Your task to perform on an android device: Open display settings Image 0: 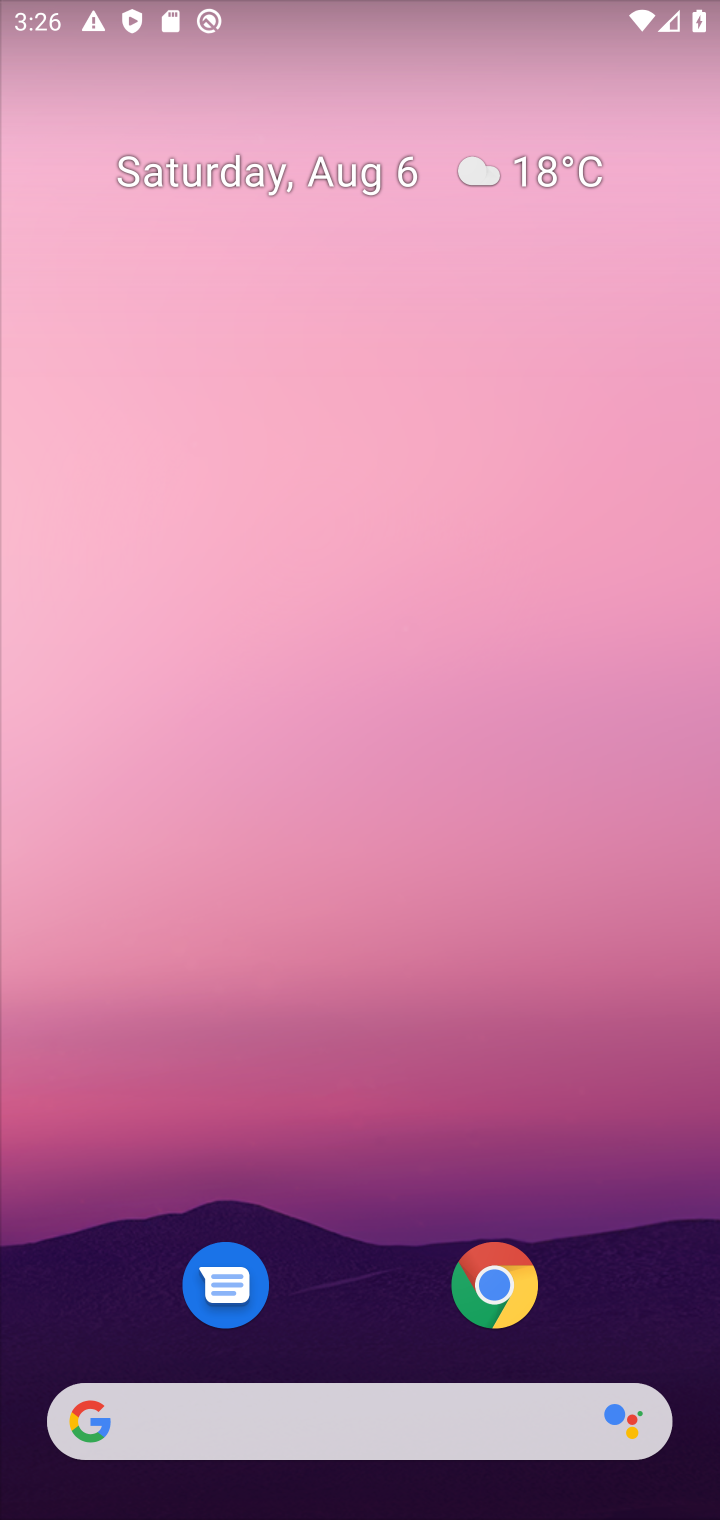
Step 0: drag from (379, 1314) to (441, 10)
Your task to perform on an android device: Open display settings Image 1: 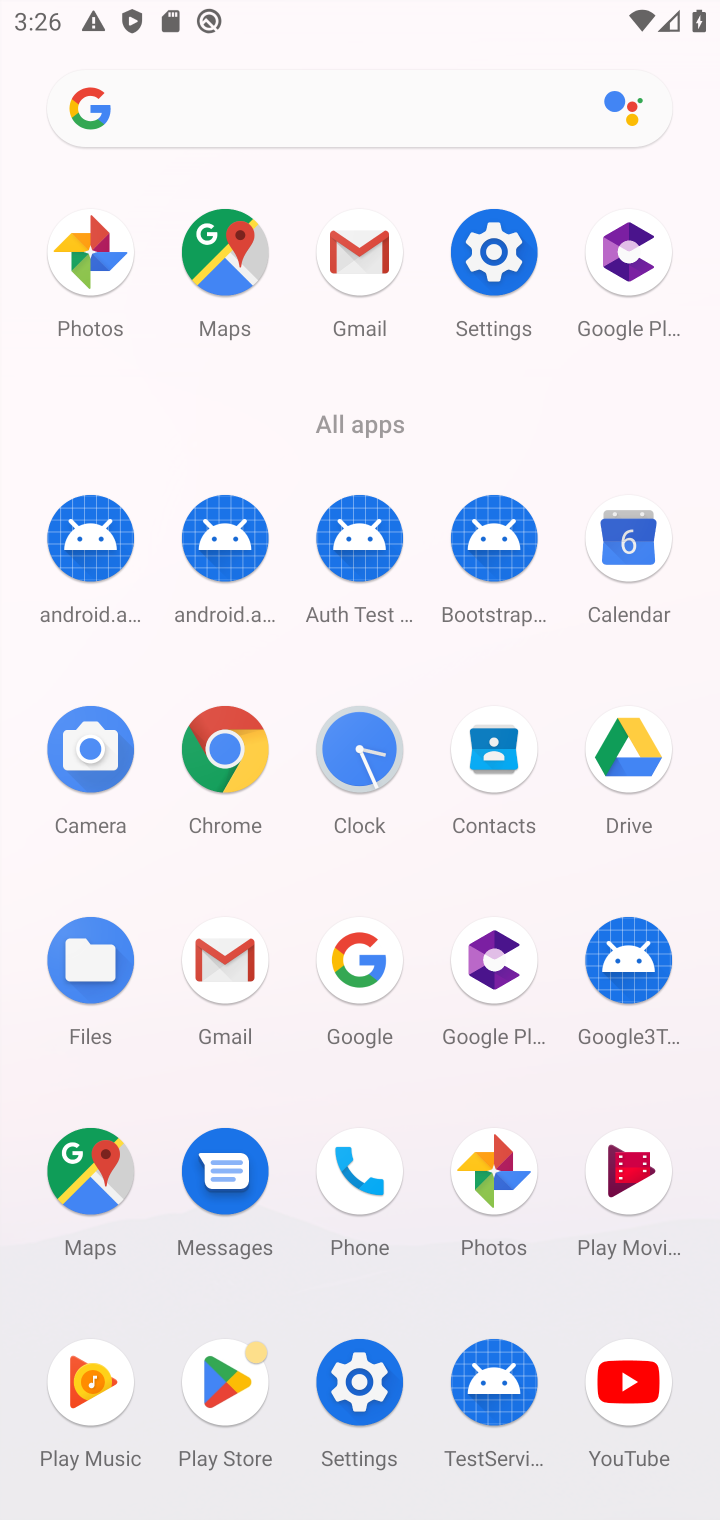
Step 1: click (492, 244)
Your task to perform on an android device: Open display settings Image 2: 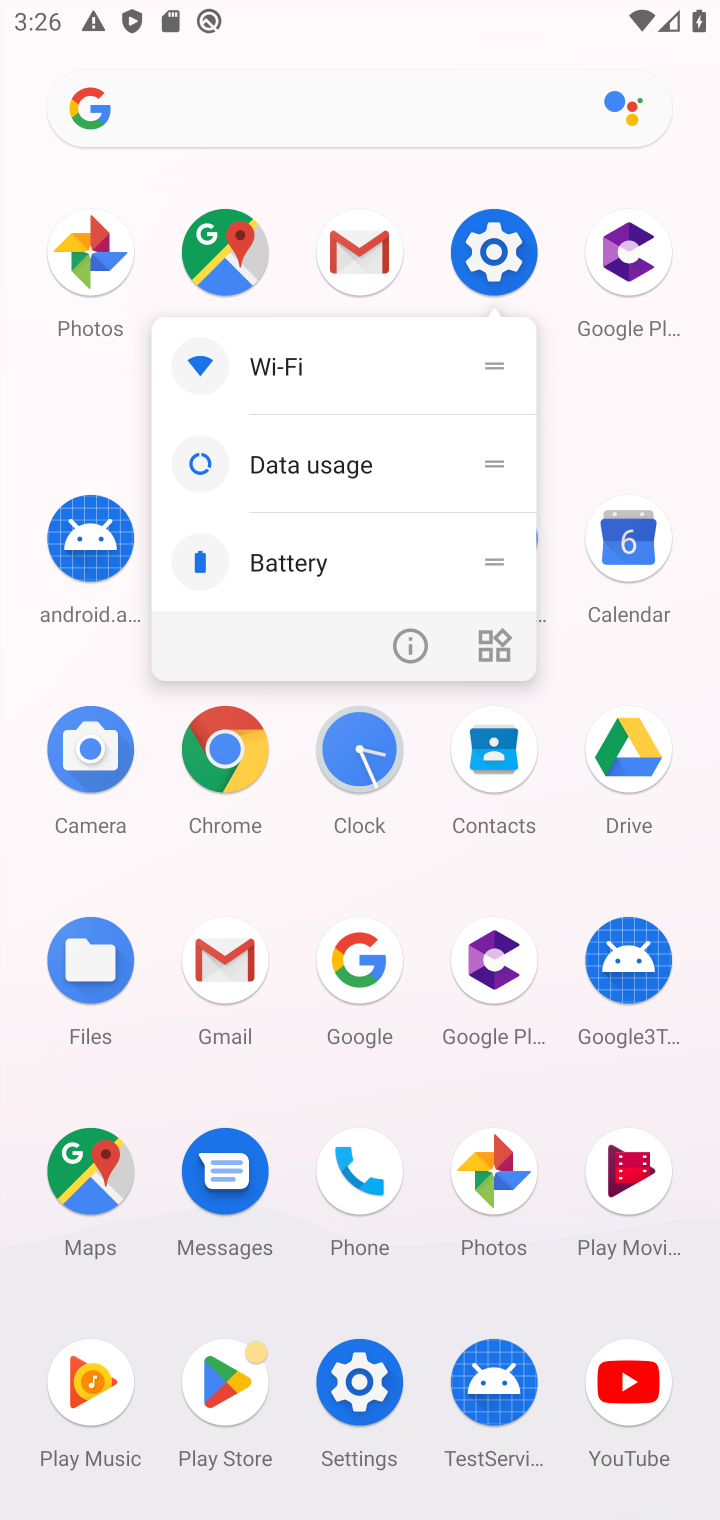
Step 2: click (491, 245)
Your task to perform on an android device: Open display settings Image 3: 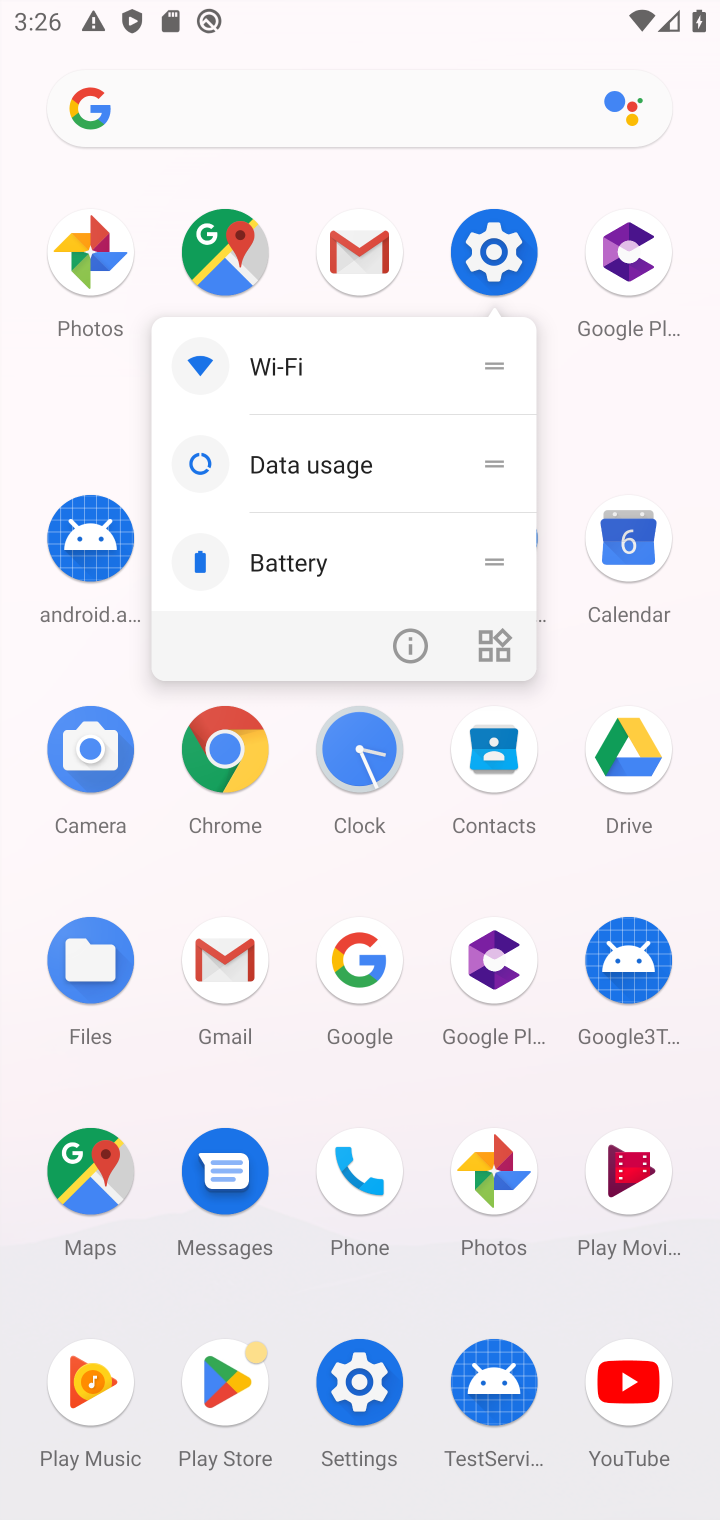
Step 3: click (492, 236)
Your task to perform on an android device: Open display settings Image 4: 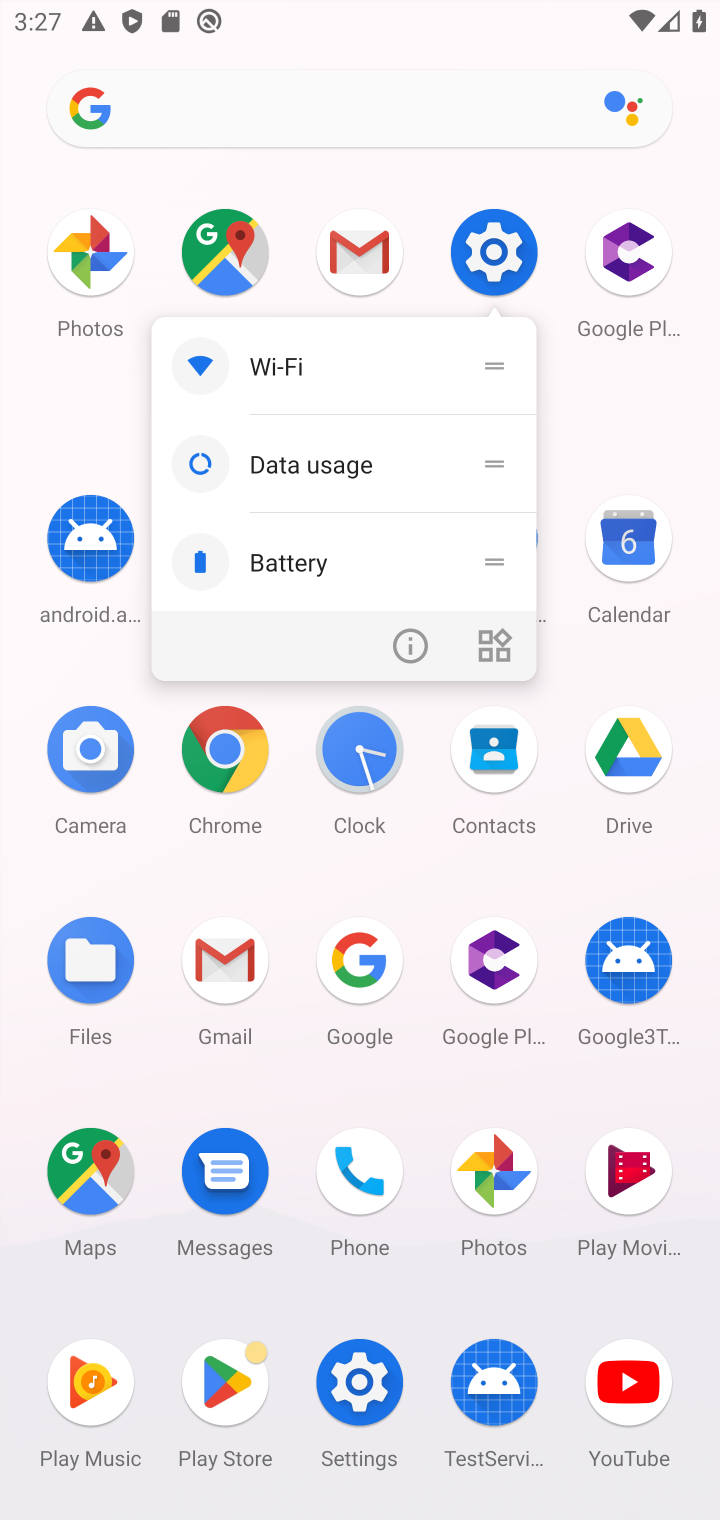
Step 4: click (490, 252)
Your task to perform on an android device: Open display settings Image 5: 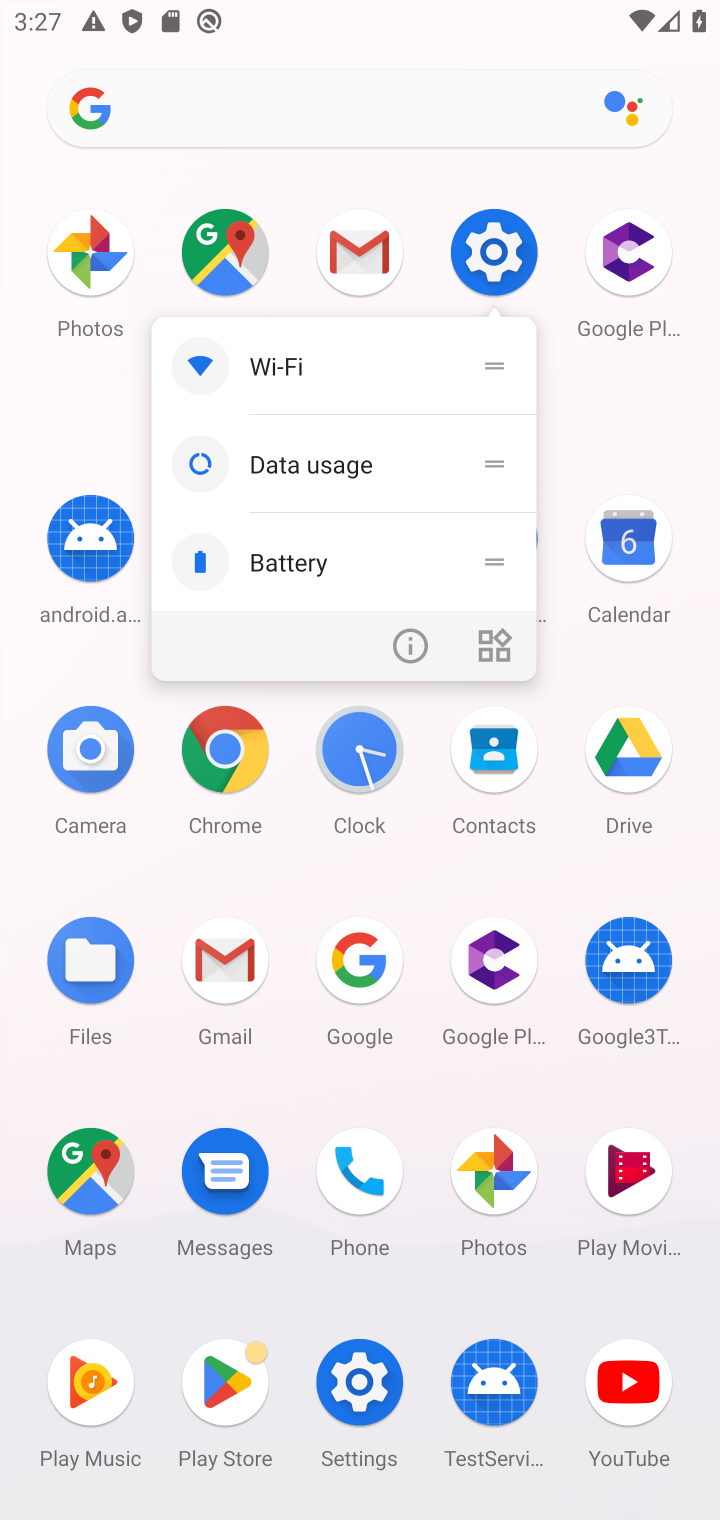
Step 5: click (506, 243)
Your task to perform on an android device: Open display settings Image 6: 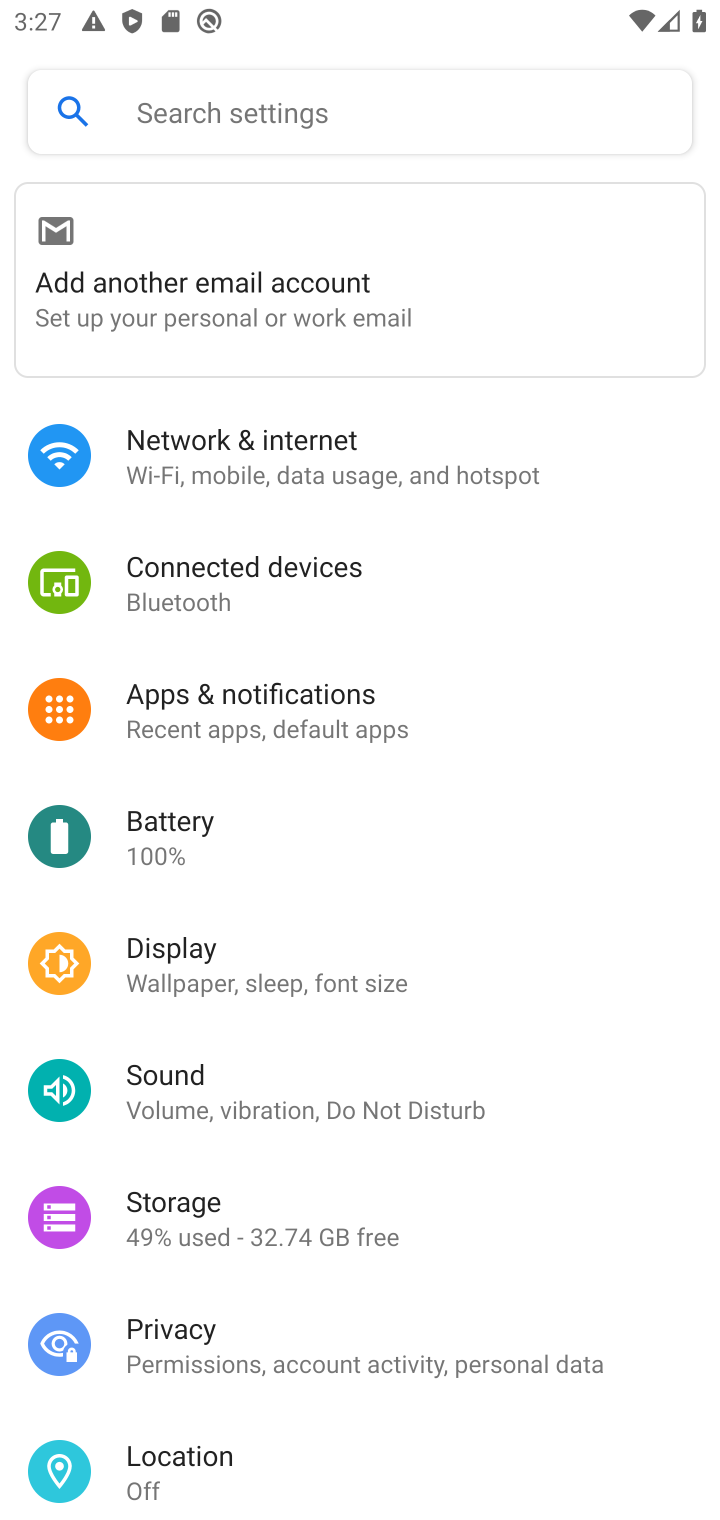
Step 6: click (237, 941)
Your task to perform on an android device: Open display settings Image 7: 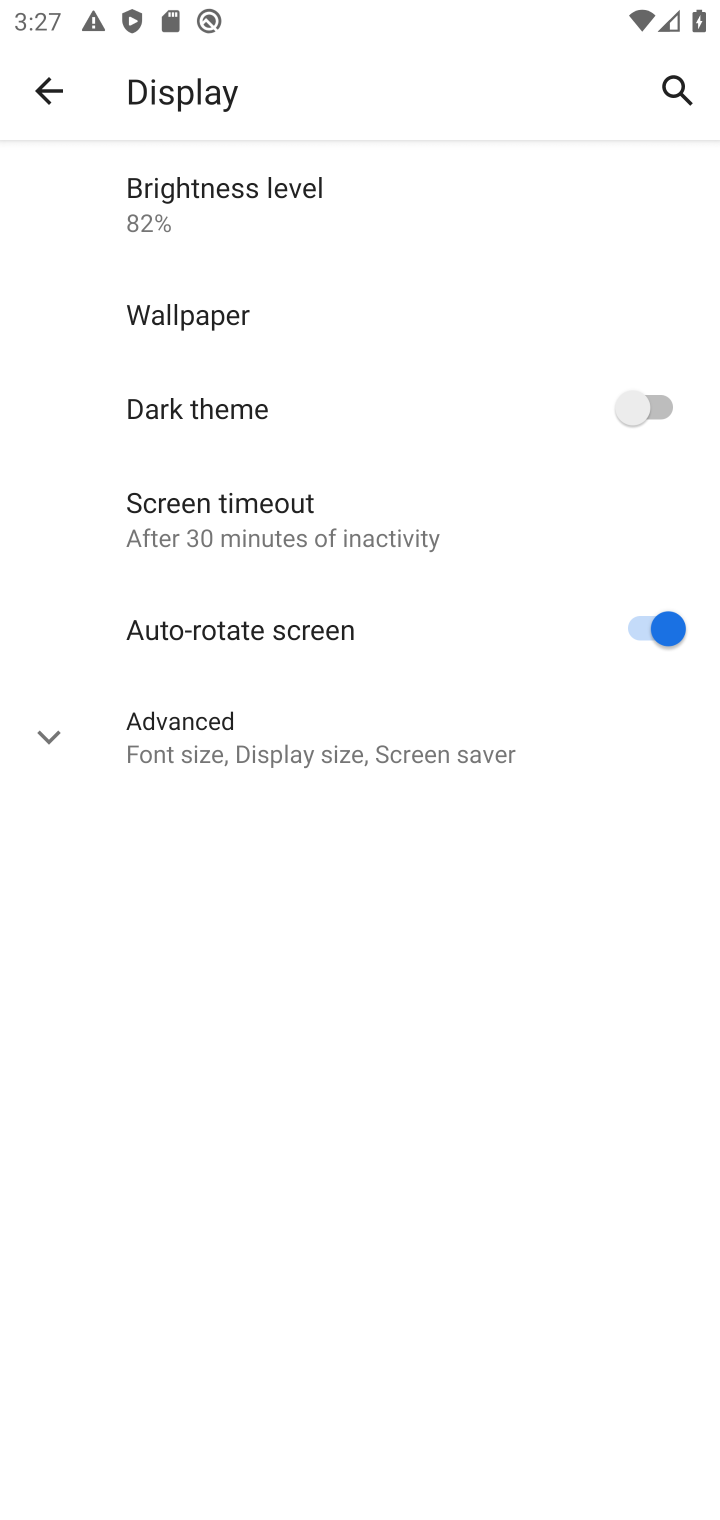
Step 7: click (45, 727)
Your task to perform on an android device: Open display settings Image 8: 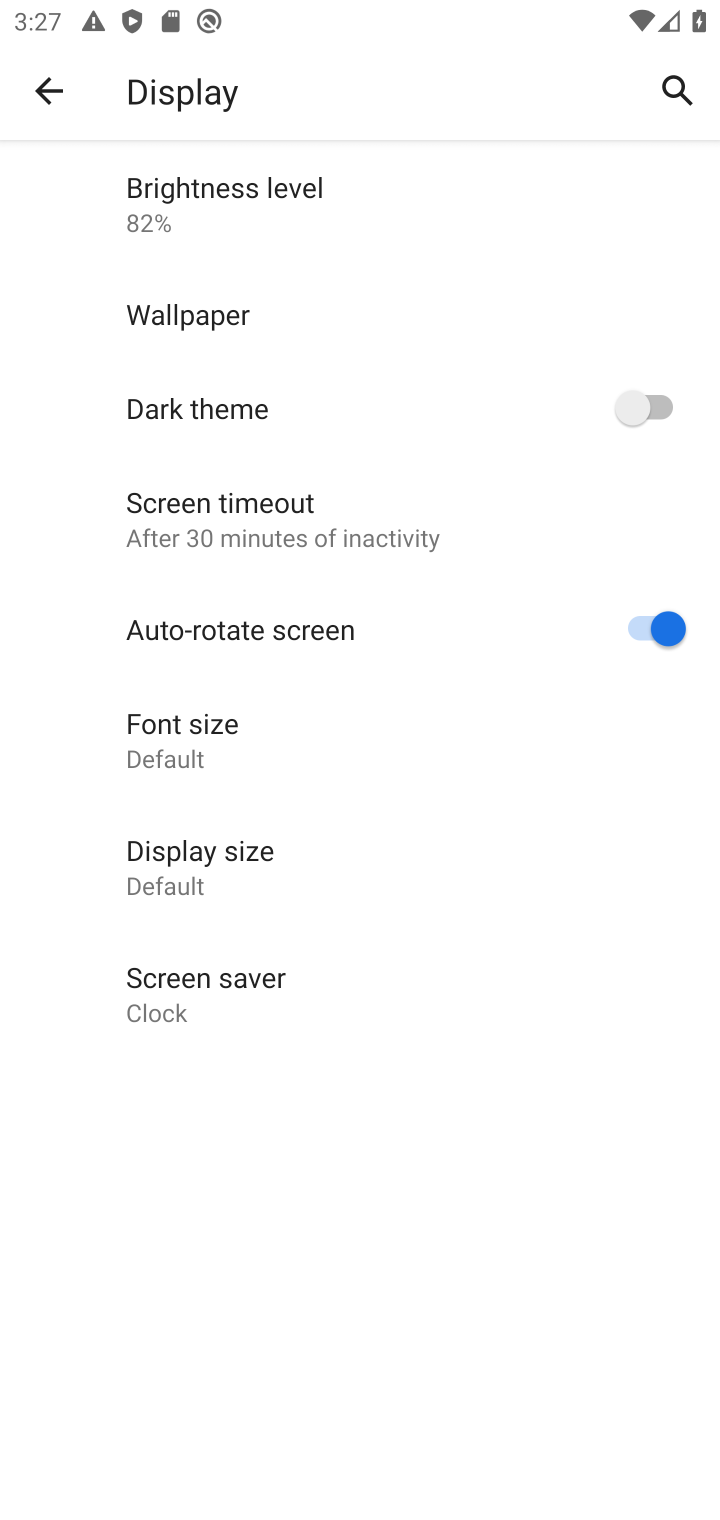
Step 8: task complete